Your task to perform on an android device: What's the weather going to be tomorrow? Image 0: 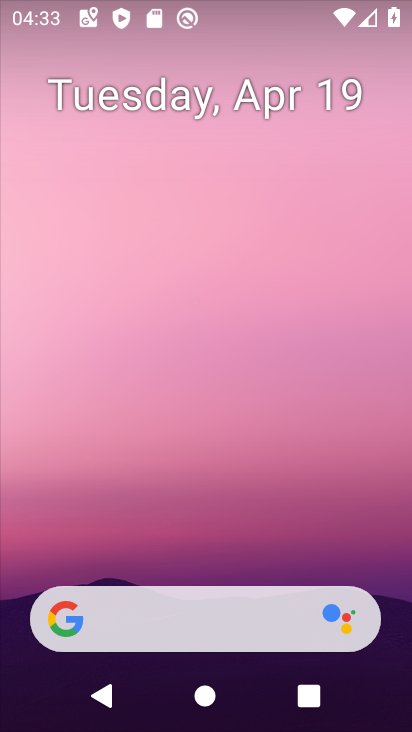
Step 0: drag from (232, 480) to (258, 92)
Your task to perform on an android device: What's the weather going to be tomorrow? Image 1: 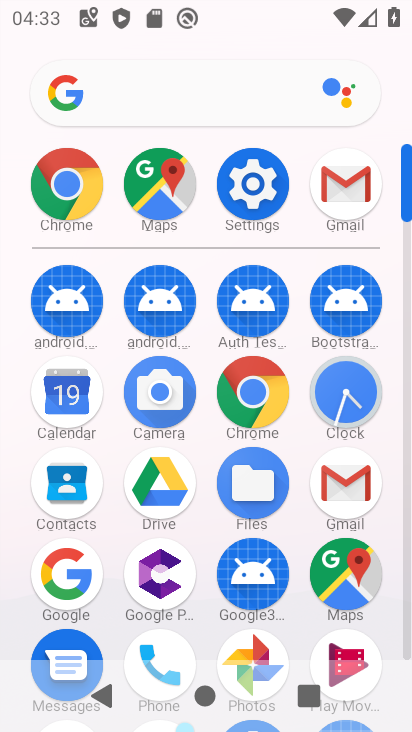
Step 1: click (45, 583)
Your task to perform on an android device: What's the weather going to be tomorrow? Image 2: 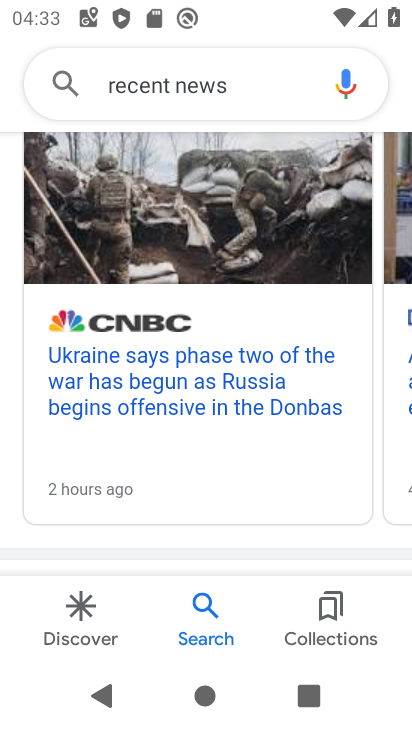
Step 2: click (248, 79)
Your task to perform on an android device: What's the weather going to be tomorrow? Image 3: 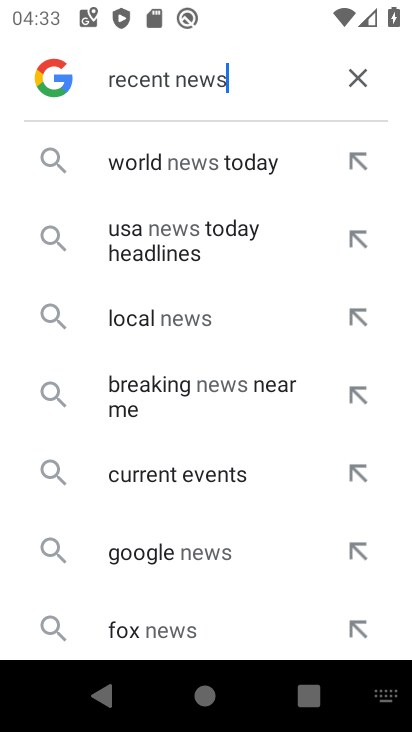
Step 3: click (352, 73)
Your task to perform on an android device: What's the weather going to be tomorrow? Image 4: 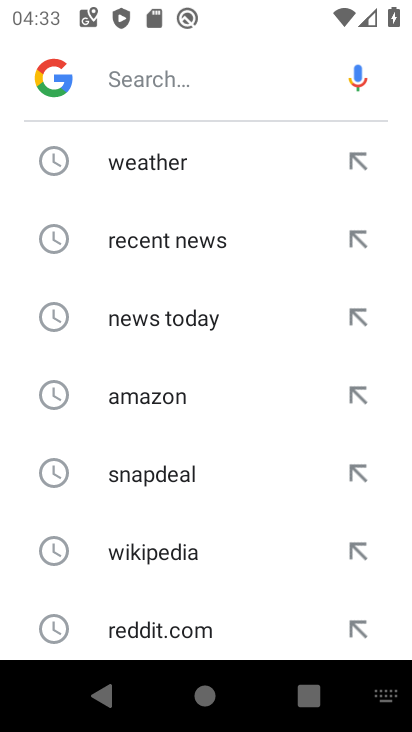
Step 4: click (185, 159)
Your task to perform on an android device: What's the weather going to be tomorrow? Image 5: 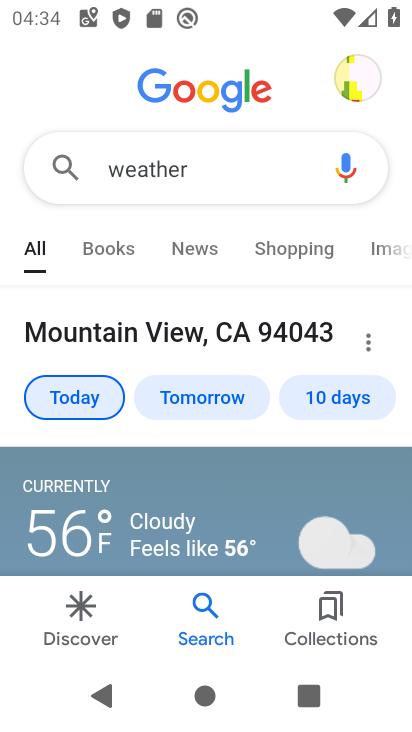
Step 5: click (211, 394)
Your task to perform on an android device: What's the weather going to be tomorrow? Image 6: 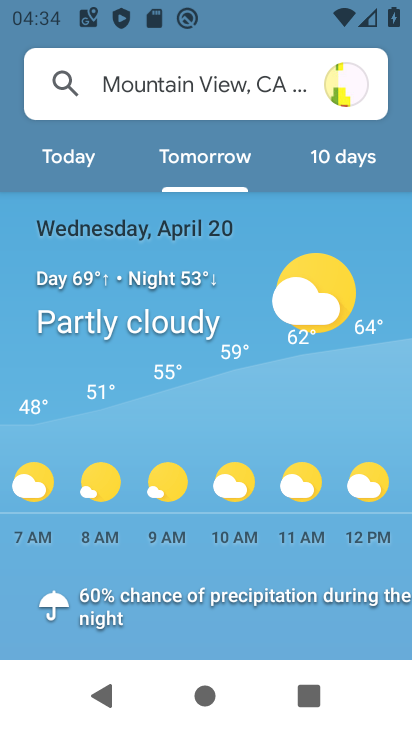
Step 6: task complete